Your task to perform on an android device: Empty the shopping cart on amazon. Add usb-c to usb-b to the cart on amazon Image 0: 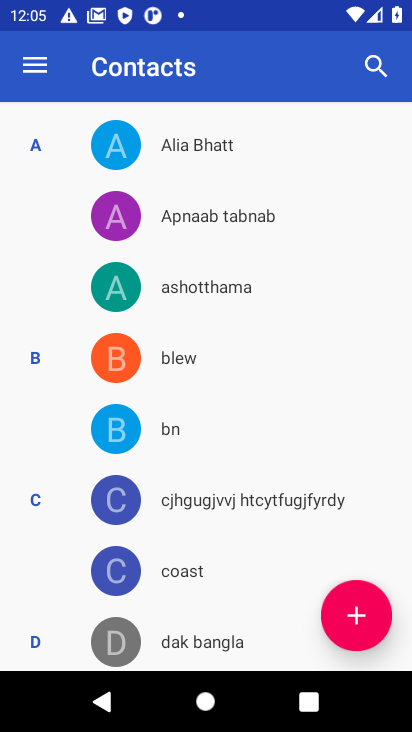
Step 0: press home button
Your task to perform on an android device: Empty the shopping cart on amazon. Add usb-c to usb-b to the cart on amazon Image 1: 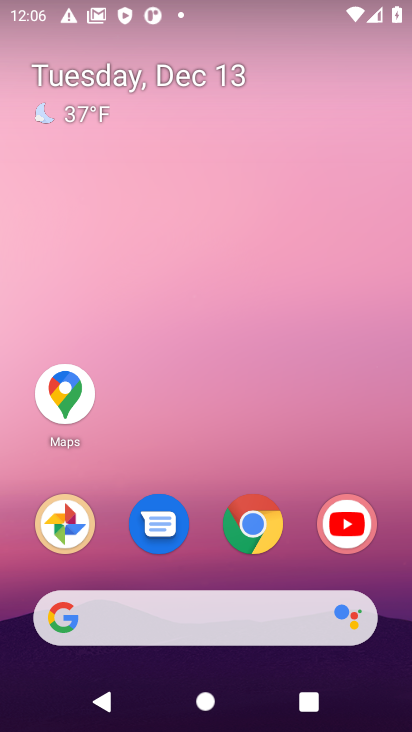
Step 1: click (259, 531)
Your task to perform on an android device: Empty the shopping cart on amazon. Add usb-c to usb-b to the cart on amazon Image 2: 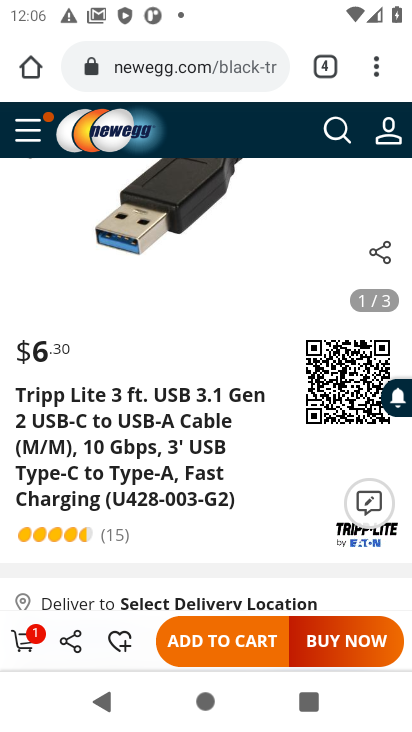
Step 2: click (186, 68)
Your task to perform on an android device: Empty the shopping cart on amazon. Add usb-c to usb-b to the cart on amazon Image 3: 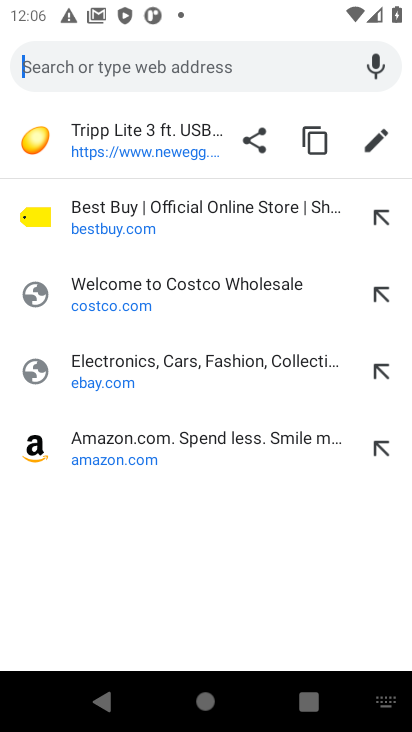
Step 3: click (82, 451)
Your task to perform on an android device: Empty the shopping cart on amazon. Add usb-c to usb-b to the cart on amazon Image 4: 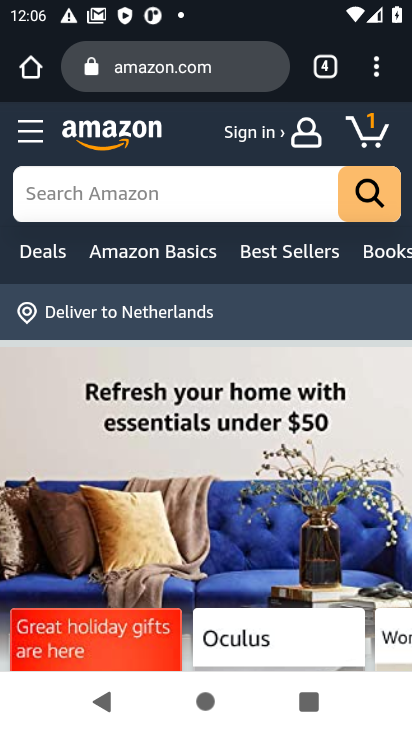
Step 4: click (371, 140)
Your task to perform on an android device: Empty the shopping cart on amazon. Add usb-c to usb-b to the cart on amazon Image 5: 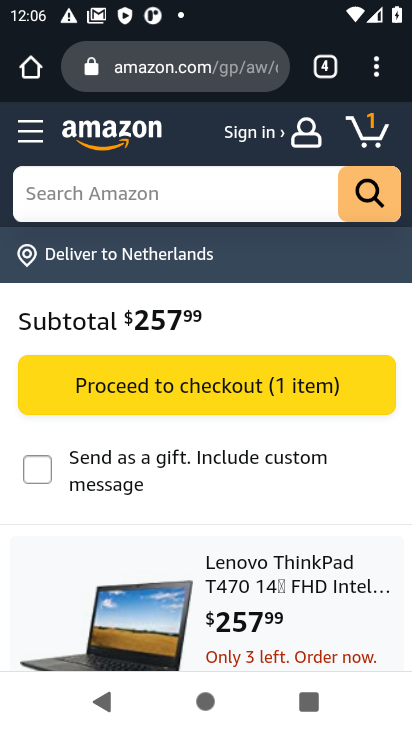
Step 5: drag from (200, 497) to (201, 193)
Your task to perform on an android device: Empty the shopping cart on amazon. Add usb-c to usb-b to the cart on amazon Image 6: 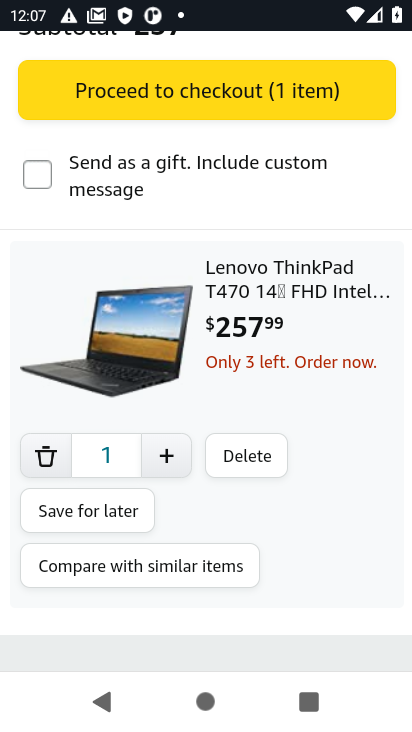
Step 6: click (249, 460)
Your task to perform on an android device: Empty the shopping cart on amazon. Add usb-c to usb-b to the cart on amazon Image 7: 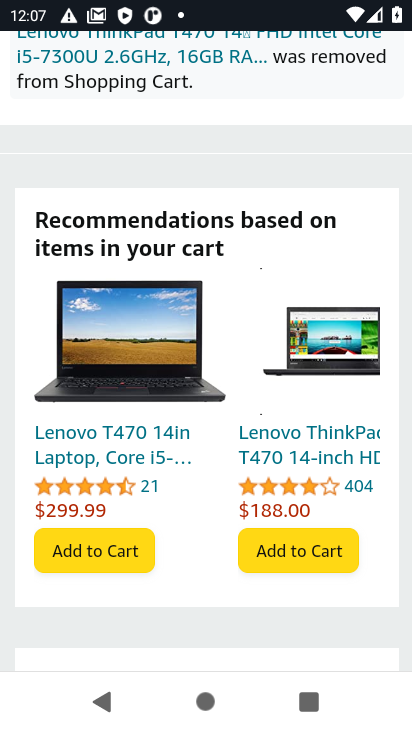
Step 7: drag from (222, 286) to (203, 516)
Your task to perform on an android device: Empty the shopping cart on amazon. Add usb-c to usb-b to the cart on amazon Image 8: 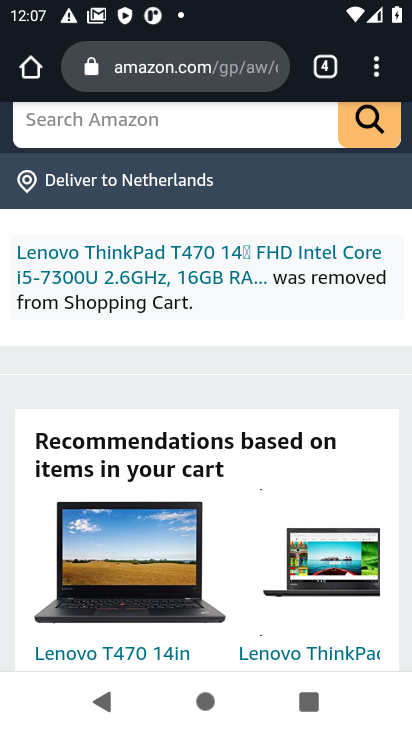
Step 8: click (101, 120)
Your task to perform on an android device: Empty the shopping cart on amazon. Add usb-c to usb-b to the cart on amazon Image 9: 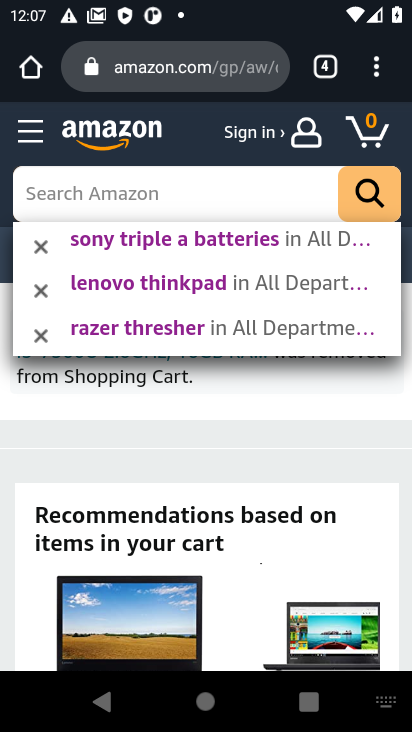
Step 9: type "usb-c to usb-b"
Your task to perform on an android device: Empty the shopping cart on amazon. Add usb-c to usb-b to the cart on amazon Image 10: 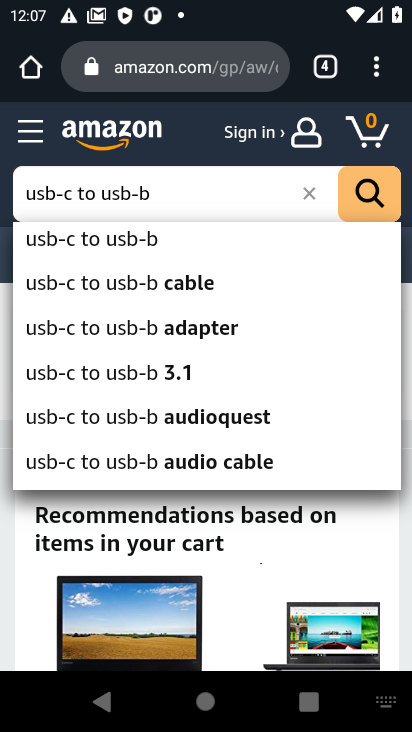
Step 10: click (124, 239)
Your task to perform on an android device: Empty the shopping cart on amazon. Add usb-c to usb-b to the cart on amazon Image 11: 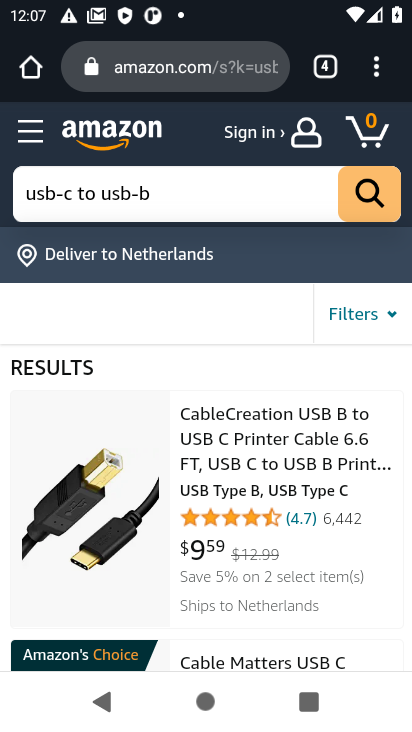
Step 11: click (284, 479)
Your task to perform on an android device: Empty the shopping cart on amazon. Add usb-c to usb-b to the cart on amazon Image 12: 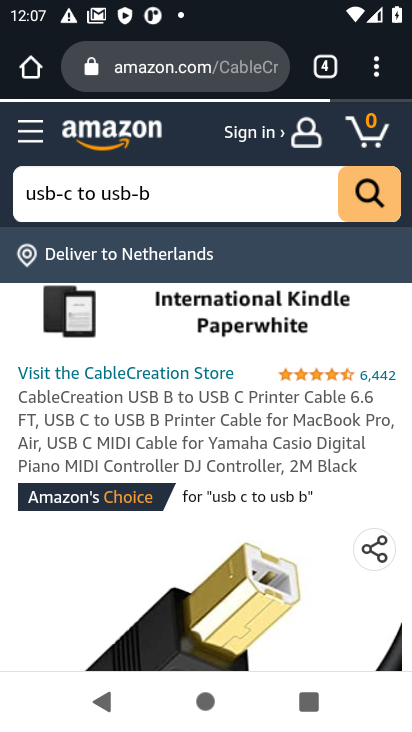
Step 12: drag from (281, 586) to (293, 147)
Your task to perform on an android device: Empty the shopping cart on amazon. Add usb-c to usb-b to the cart on amazon Image 13: 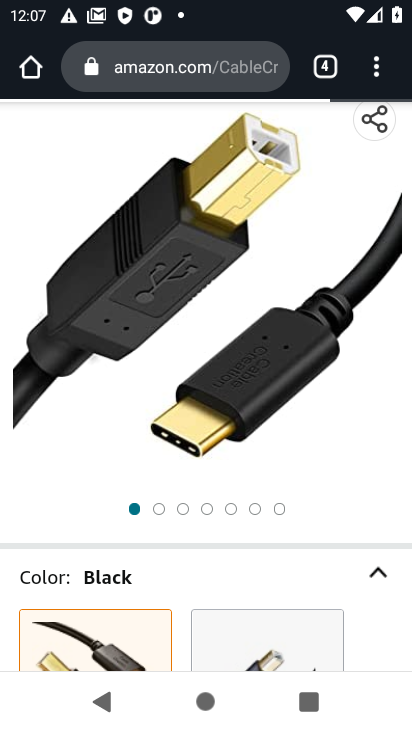
Step 13: drag from (249, 549) to (264, 187)
Your task to perform on an android device: Empty the shopping cart on amazon. Add usb-c to usb-b to the cart on amazon Image 14: 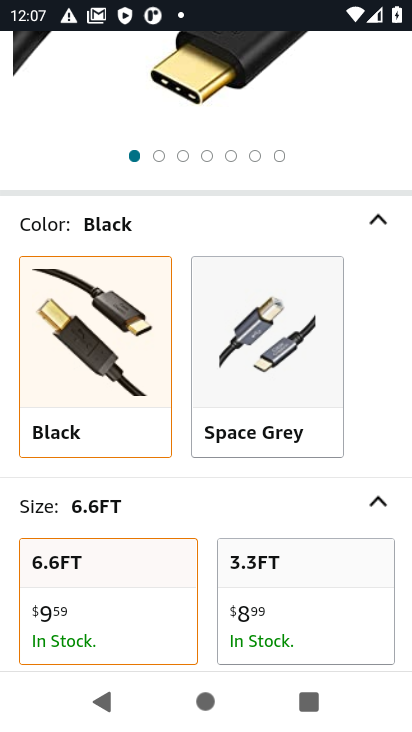
Step 14: drag from (245, 510) to (246, 174)
Your task to perform on an android device: Empty the shopping cart on amazon. Add usb-c to usb-b to the cart on amazon Image 15: 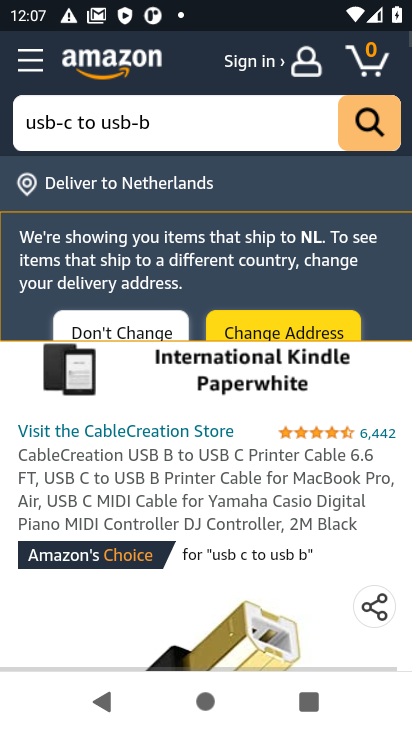
Step 15: drag from (226, 510) to (220, 207)
Your task to perform on an android device: Empty the shopping cart on amazon. Add usb-c to usb-b to the cart on amazon Image 16: 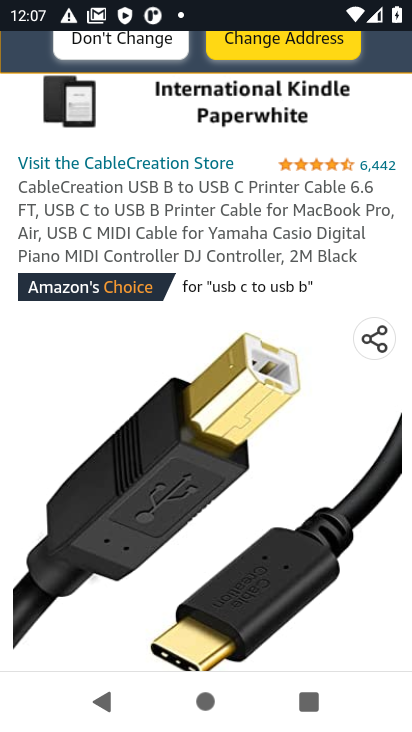
Step 16: drag from (196, 543) to (208, 232)
Your task to perform on an android device: Empty the shopping cart on amazon. Add usb-c to usb-b to the cart on amazon Image 17: 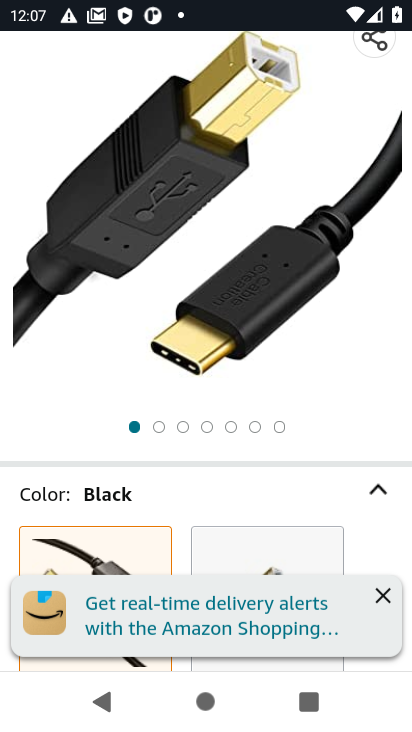
Step 17: drag from (216, 562) to (219, 186)
Your task to perform on an android device: Empty the shopping cart on amazon. Add usb-c to usb-b to the cart on amazon Image 18: 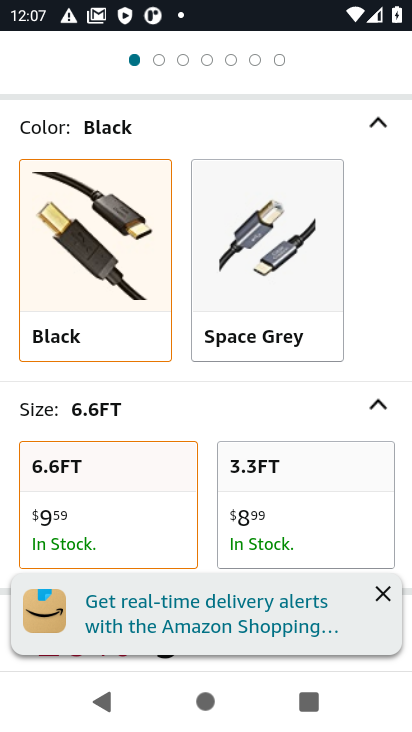
Step 18: drag from (216, 397) to (219, 143)
Your task to perform on an android device: Empty the shopping cart on amazon. Add usb-c to usb-b to the cart on amazon Image 19: 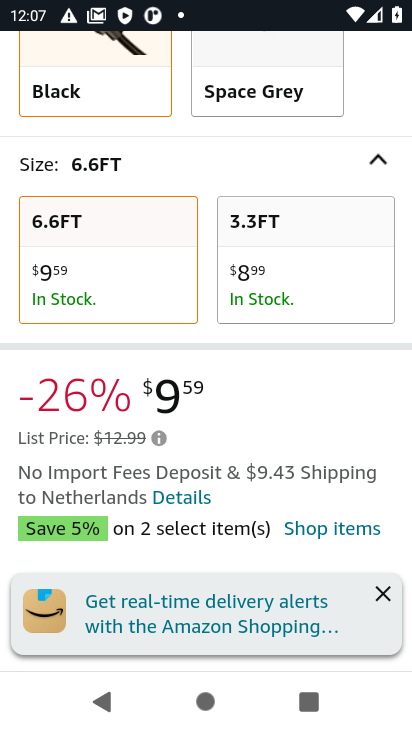
Step 19: drag from (240, 412) to (216, 156)
Your task to perform on an android device: Empty the shopping cart on amazon. Add usb-c to usb-b to the cart on amazon Image 20: 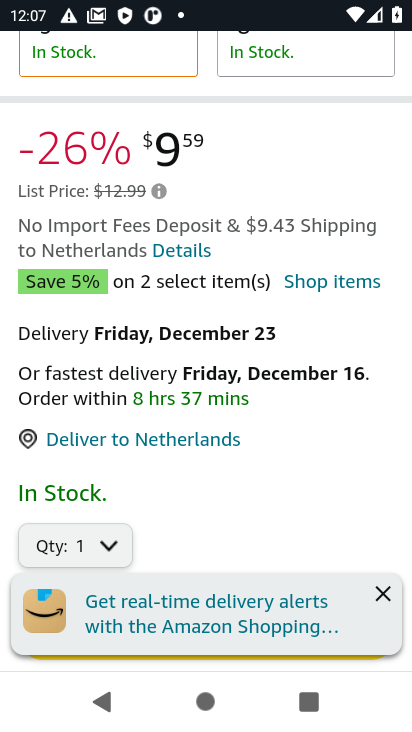
Step 20: click (381, 594)
Your task to perform on an android device: Empty the shopping cart on amazon. Add usb-c to usb-b to the cart on amazon Image 21: 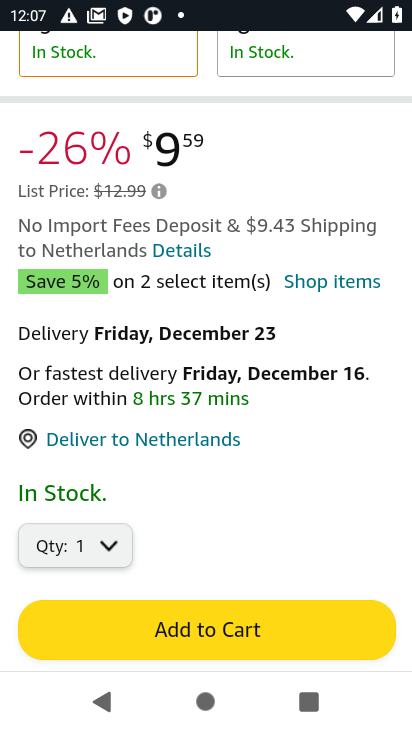
Step 21: click (254, 639)
Your task to perform on an android device: Empty the shopping cart on amazon. Add usb-c to usb-b to the cart on amazon Image 22: 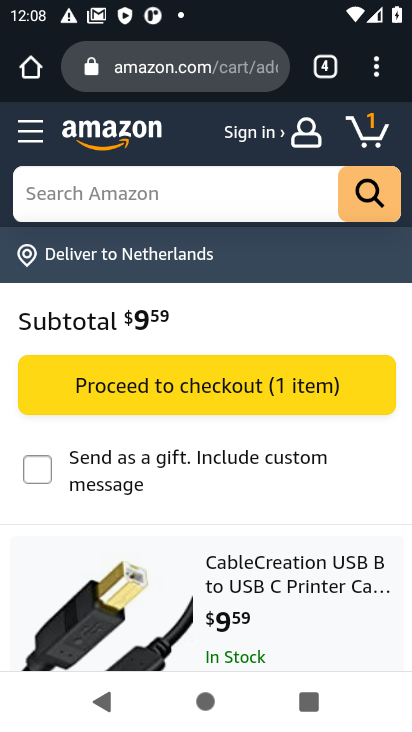
Step 22: task complete